Your task to perform on an android device: change the clock display to digital Image 0: 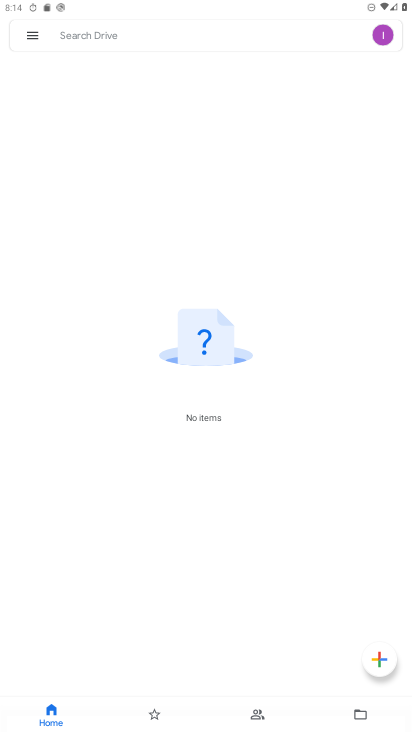
Step 0: press home button
Your task to perform on an android device: change the clock display to digital Image 1: 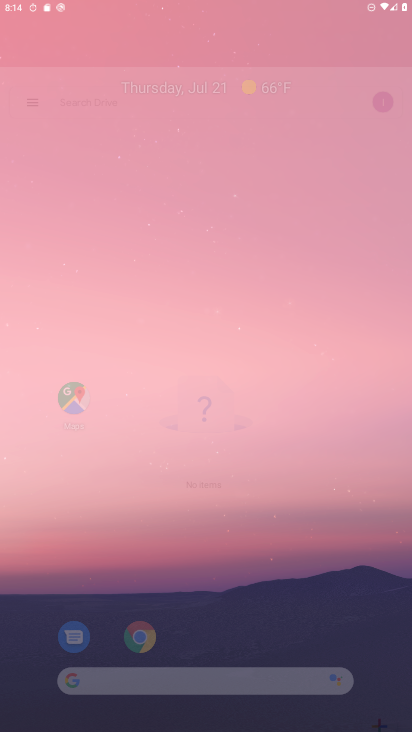
Step 1: drag from (207, 512) to (387, 293)
Your task to perform on an android device: change the clock display to digital Image 2: 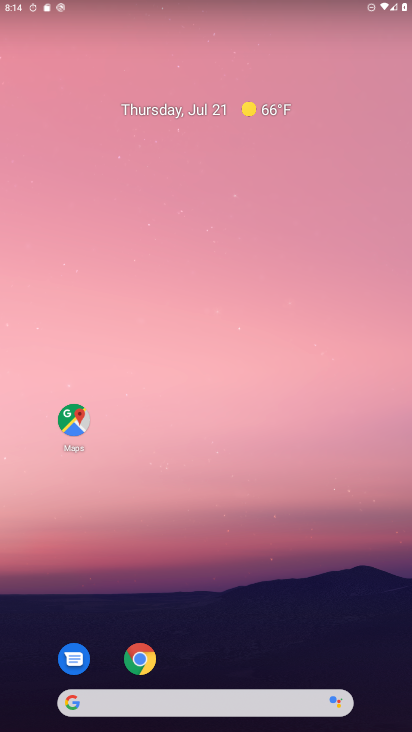
Step 2: drag from (230, 655) to (373, 160)
Your task to perform on an android device: change the clock display to digital Image 3: 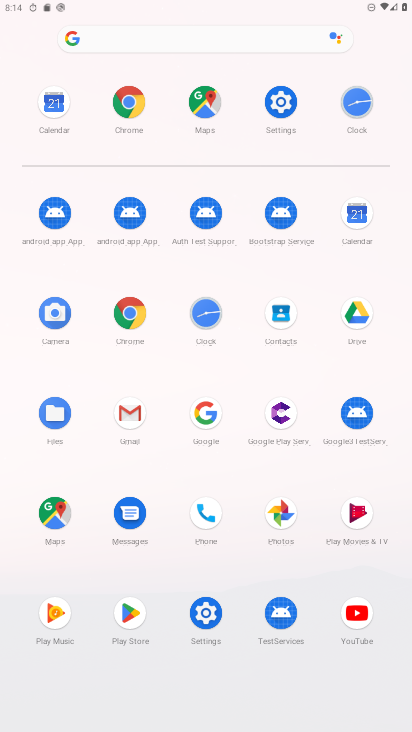
Step 3: click (185, 319)
Your task to perform on an android device: change the clock display to digital Image 4: 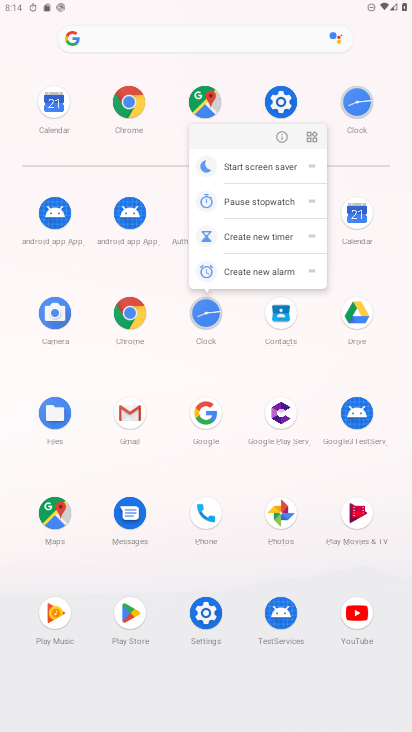
Step 4: click (282, 138)
Your task to perform on an android device: change the clock display to digital Image 5: 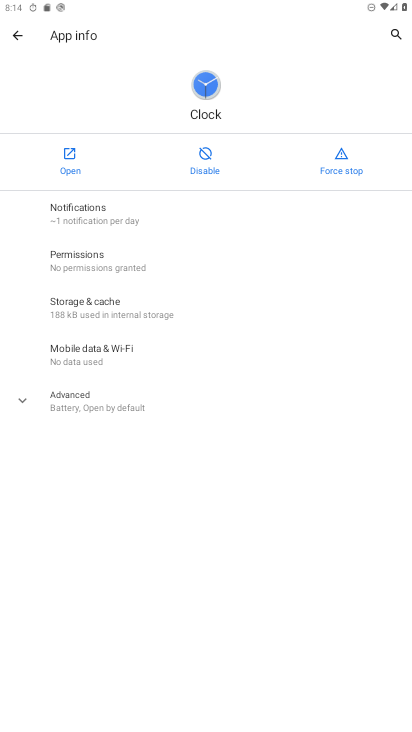
Step 5: click (80, 167)
Your task to perform on an android device: change the clock display to digital Image 6: 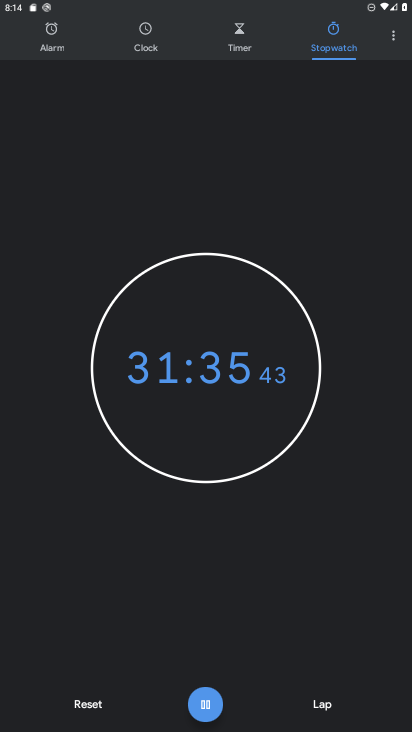
Step 6: drag from (393, 34) to (339, 57)
Your task to perform on an android device: change the clock display to digital Image 7: 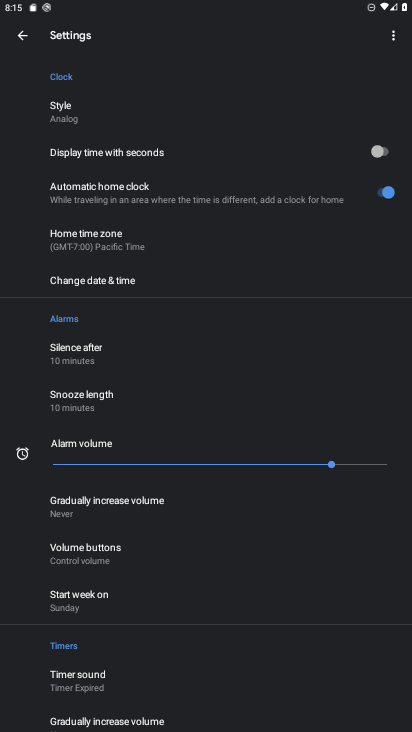
Step 7: click (84, 116)
Your task to perform on an android device: change the clock display to digital Image 8: 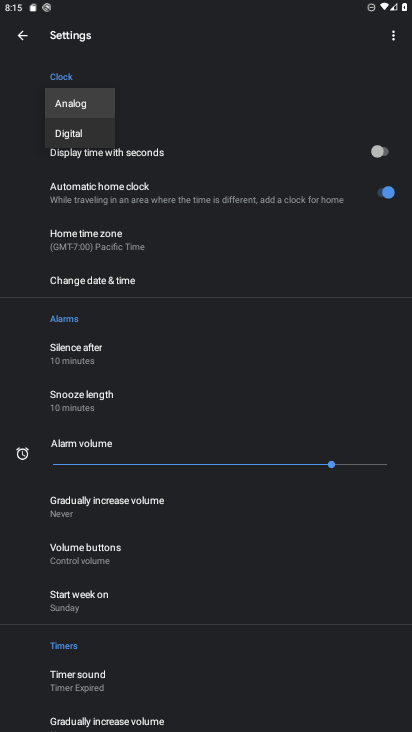
Step 8: click (97, 131)
Your task to perform on an android device: change the clock display to digital Image 9: 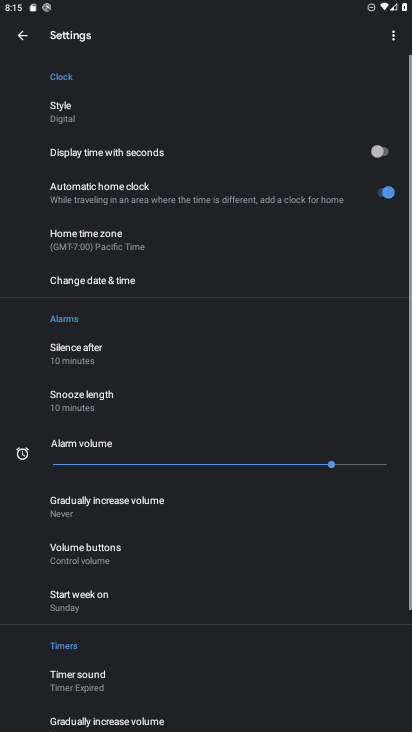
Step 9: task complete